Your task to perform on an android device: Open network settings Image 0: 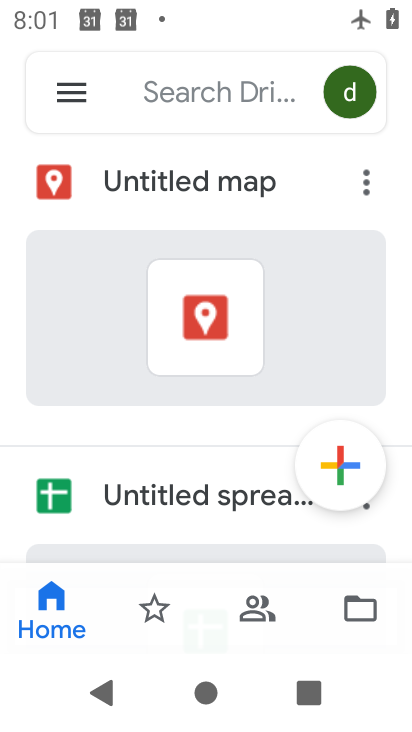
Step 0: press home button
Your task to perform on an android device: Open network settings Image 1: 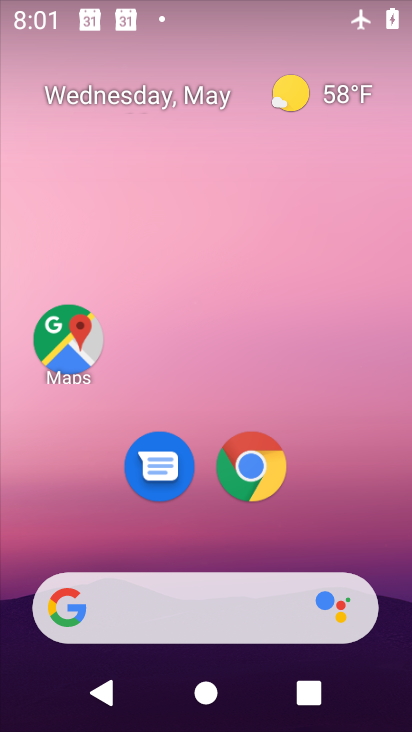
Step 1: drag from (201, 531) to (247, 64)
Your task to perform on an android device: Open network settings Image 2: 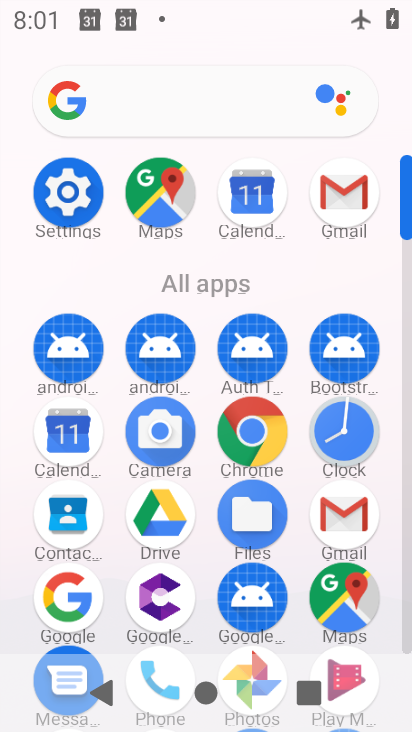
Step 2: click (64, 191)
Your task to perform on an android device: Open network settings Image 3: 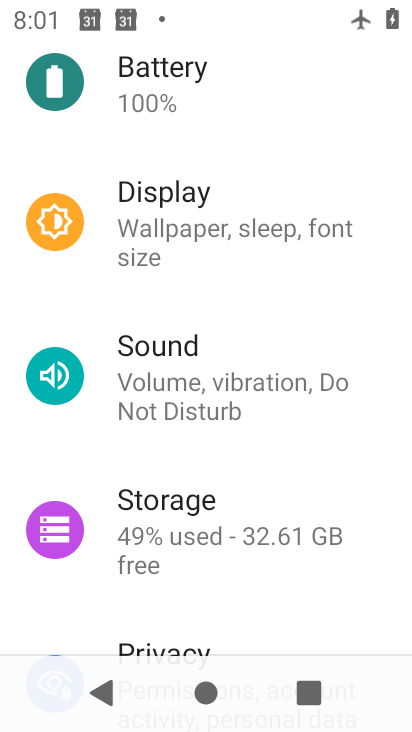
Step 3: drag from (191, 119) to (193, 624)
Your task to perform on an android device: Open network settings Image 4: 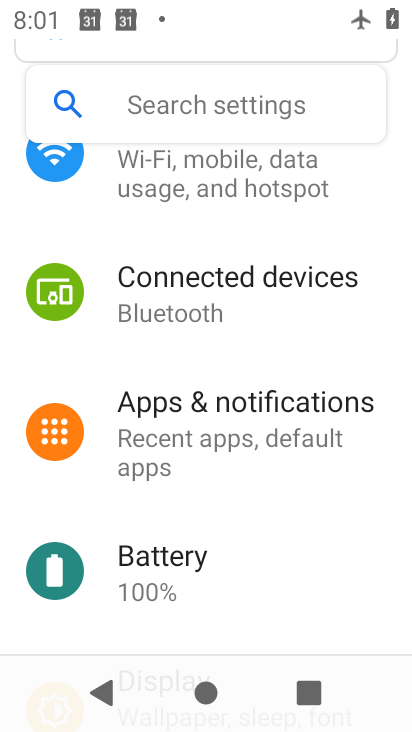
Step 4: click (180, 172)
Your task to perform on an android device: Open network settings Image 5: 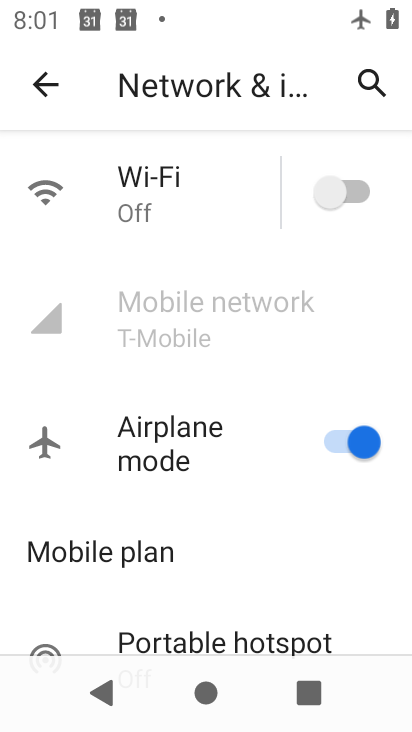
Step 5: drag from (147, 516) to (213, 133)
Your task to perform on an android device: Open network settings Image 6: 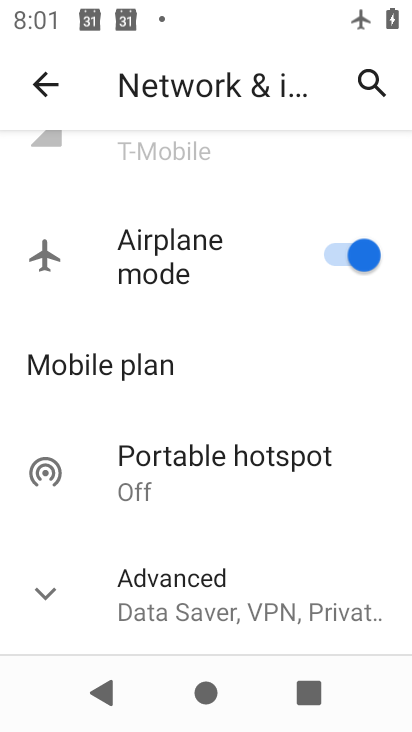
Step 6: click (96, 597)
Your task to perform on an android device: Open network settings Image 7: 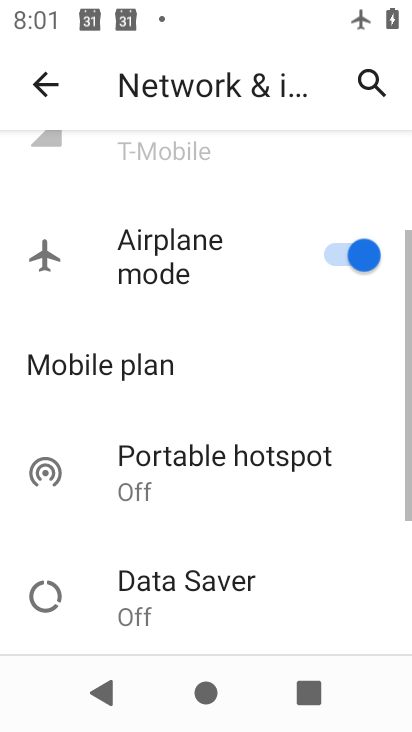
Step 7: task complete